Your task to perform on an android device: toggle sleep mode Image 0: 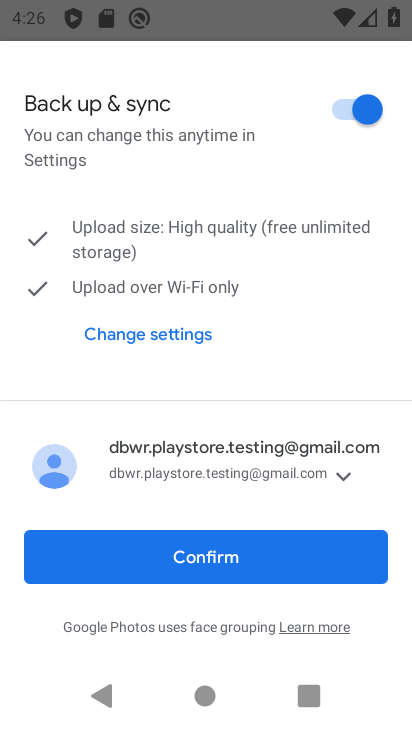
Step 0: press home button
Your task to perform on an android device: toggle sleep mode Image 1: 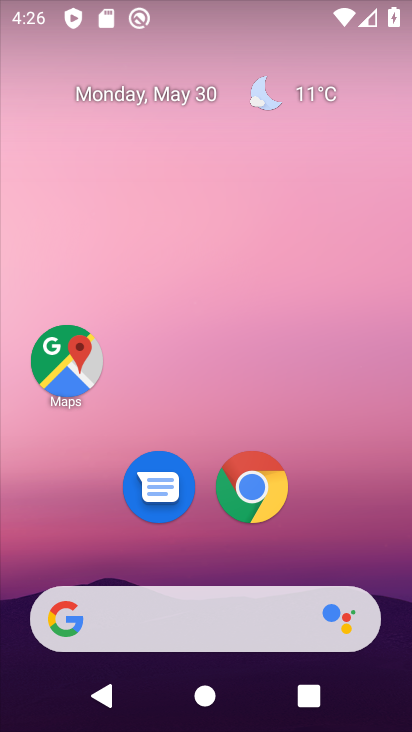
Step 1: drag from (404, 626) to (300, 90)
Your task to perform on an android device: toggle sleep mode Image 2: 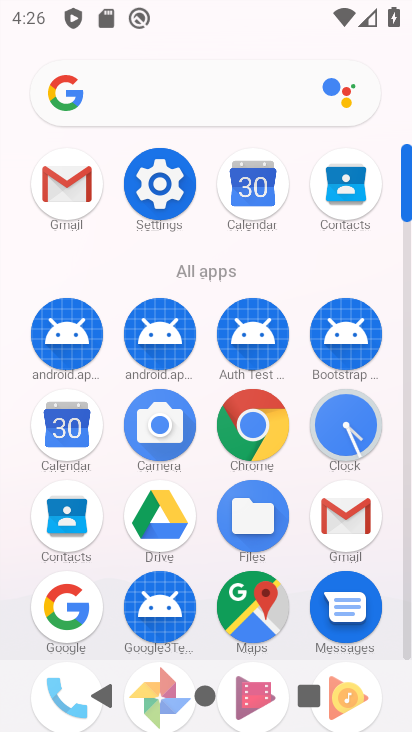
Step 2: click (410, 644)
Your task to perform on an android device: toggle sleep mode Image 3: 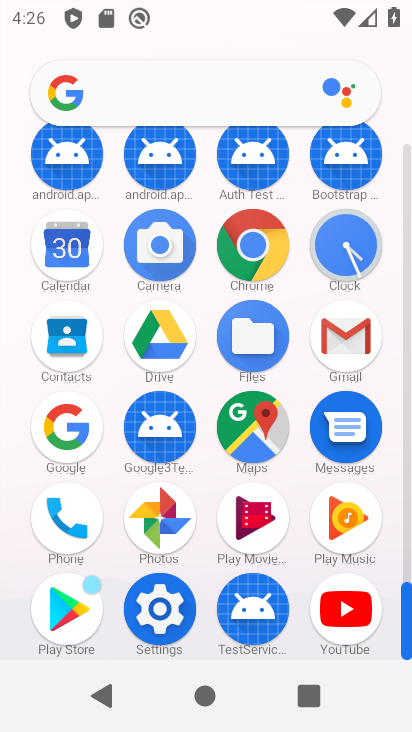
Step 3: click (162, 608)
Your task to perform on an android device: toggle sleep mode Image 4: 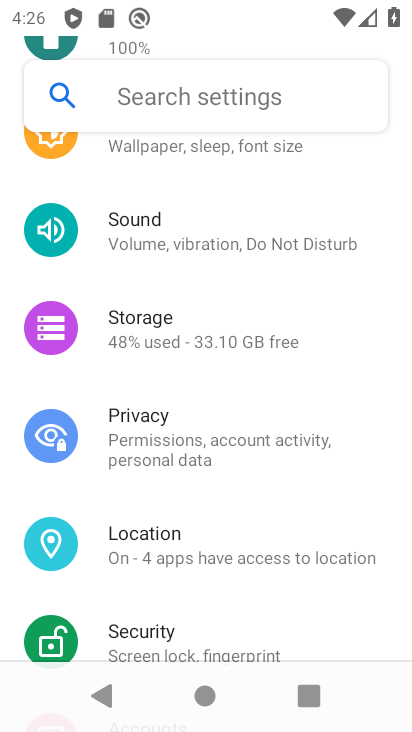
Step 4: drag from (308, 275) to (323, 492)
Your task to perform on an android device: toggle sleep mode Image 5: 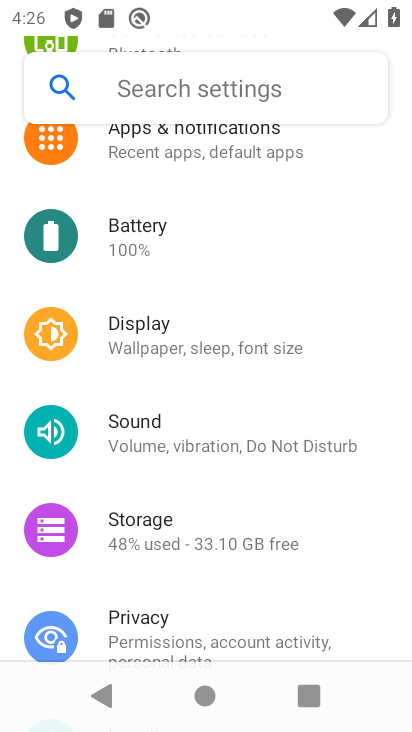
Step 5: click (148, 334)
Your task to perform on an android device: toggle sleep mode Image 6: 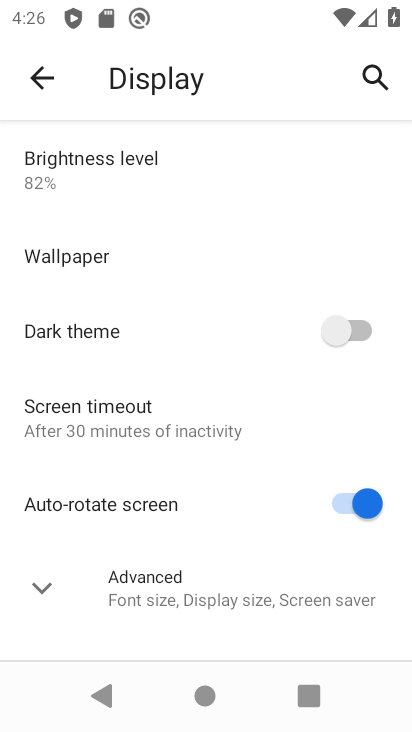
Step 6: click (38, 591)
Your task to perform on an android device: toggle sleep mode Image 7: 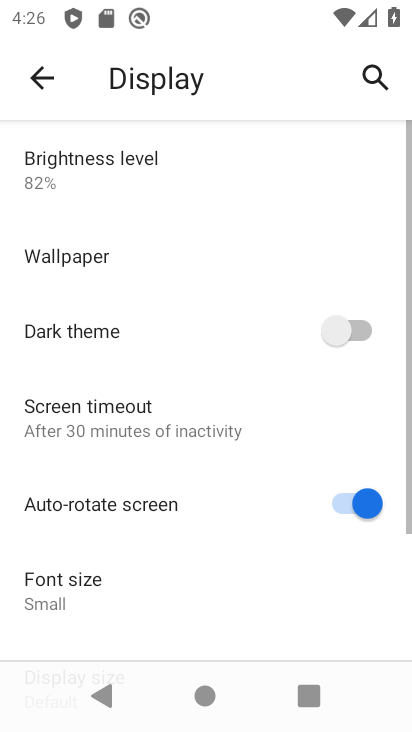
Step 7: task complete